Your task to perform on an android device: make emails show in primary in the gmail app Image 0: 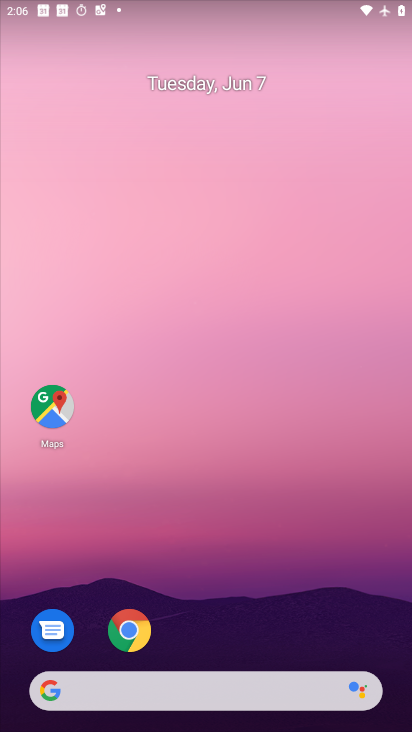
Step 0: drag from (386, 641) to (274, 336)
Your task to perform on an android device: make emails show in primary in the gmail app Image 1: 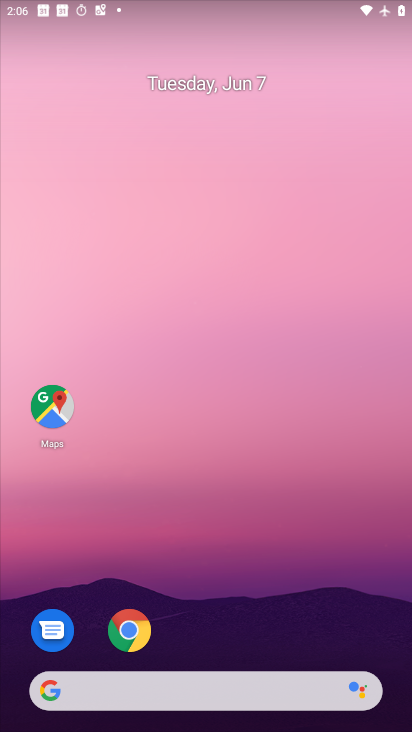
Step 1: drag from (333, 661) to (174, 48)
Your task to perform on an android device: make emails show in primary in the gmail app Image 2: 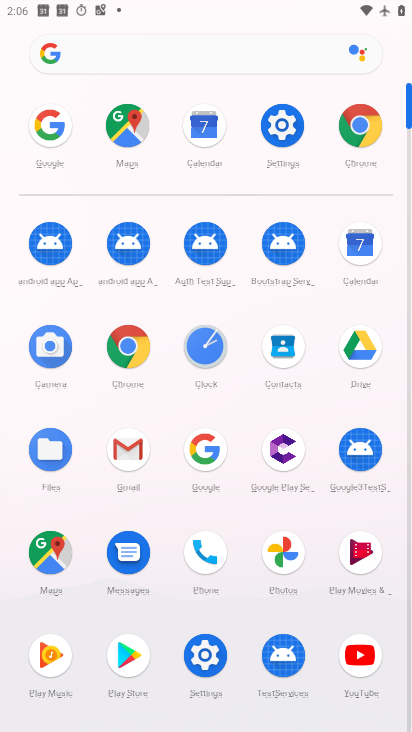
Step 2: click (134, 447)
Your task to perform on an android device: make emails show in primary in the gmail app Image 3: 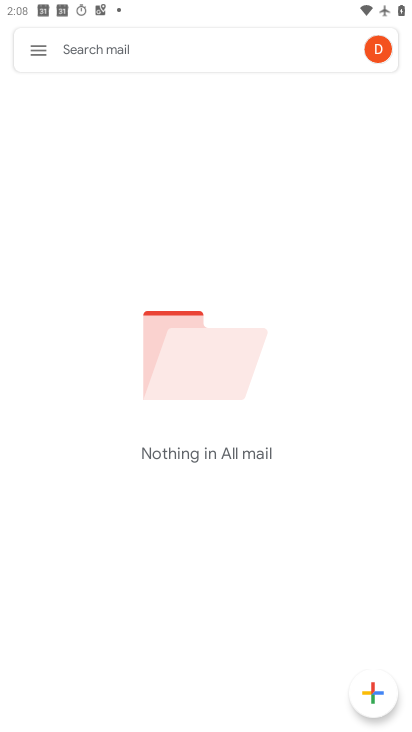
Step 3: task complete